Your task to perform on an android device: clear all cookies in the chrome app Image 0: 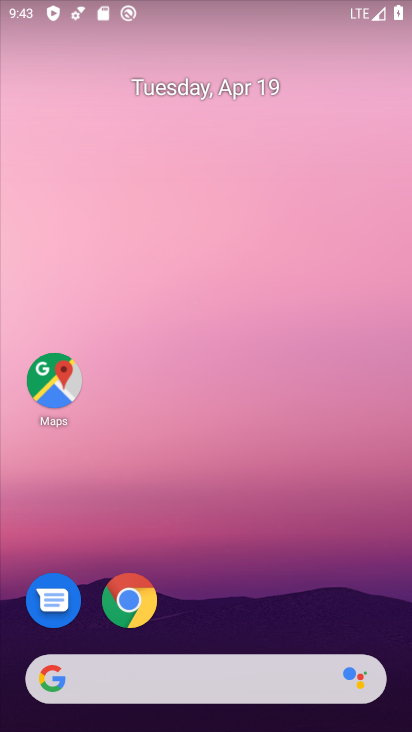
Step 0: drag from (335, 244) to (296, 61)
Your task to perform on an android device: clear all cookies in the chrome app Image 1: 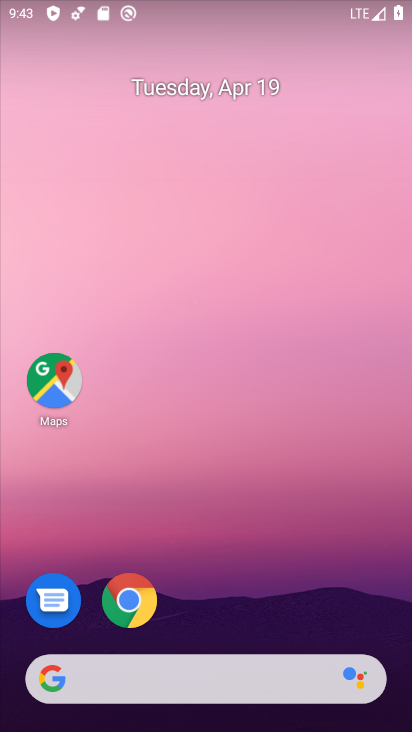
Step 1: drag from (335, 611) to (287, 107)
Your task to perform on an android device: clear all cookies in the chrome app Image 2: 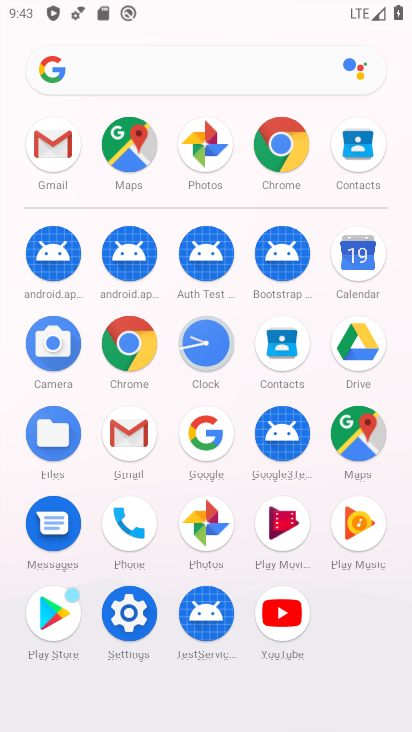
Step 2: click (283, 149)
Your task to perform on an android device: clear all cookies in the chrome app Image 3: 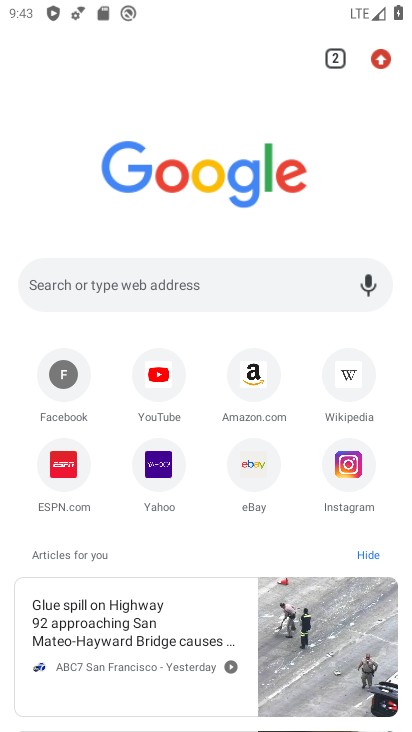
Step 3: click (378, 76)
Your task to perform on an android device: clear all cookies in the chrome app Image 4: 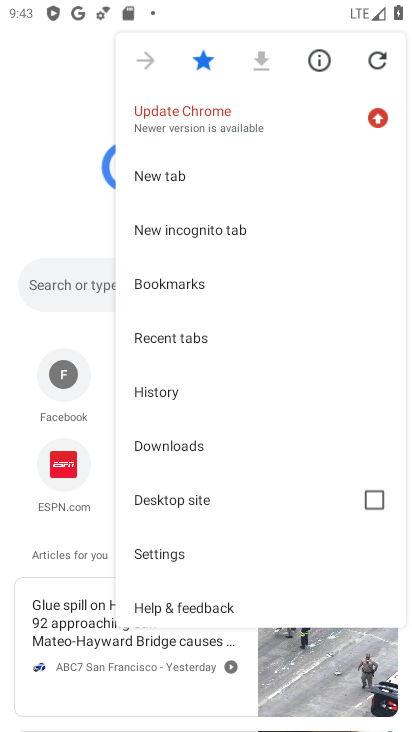
Step 4: click (232, 403)
Your task to perform on an android device: clear all cookies in the chrome app Image 5: 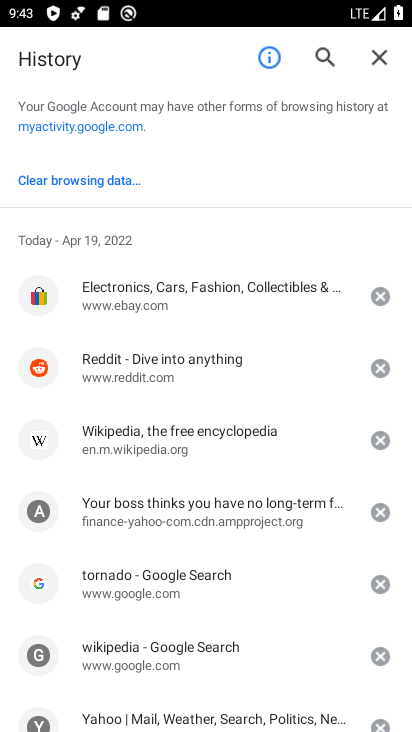
Step 5: click (116, 181)
Your task to perform on an android device: clear all cookies in the chrome app Image 6: 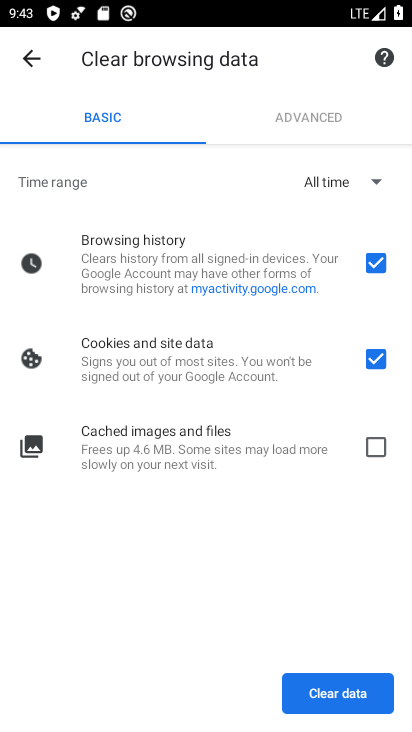
Step 6: click (344, 690)
Your task to perform on an android device: clear all cookies in the chrome app Image 7: 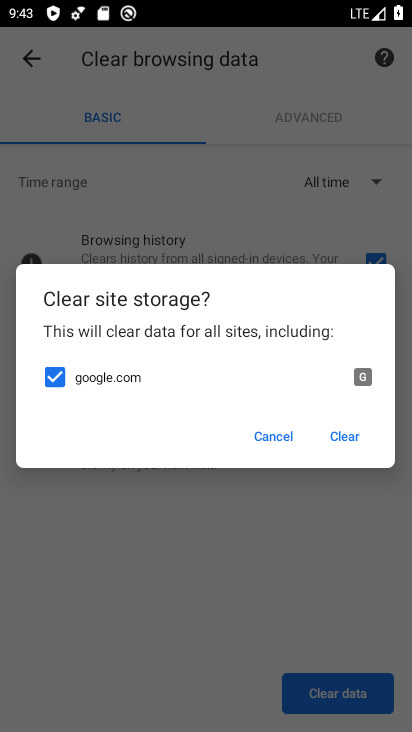
Step 7: click (352, 437)
Your task to perform on an android device: clear all cookies in the chrome app Image 8: 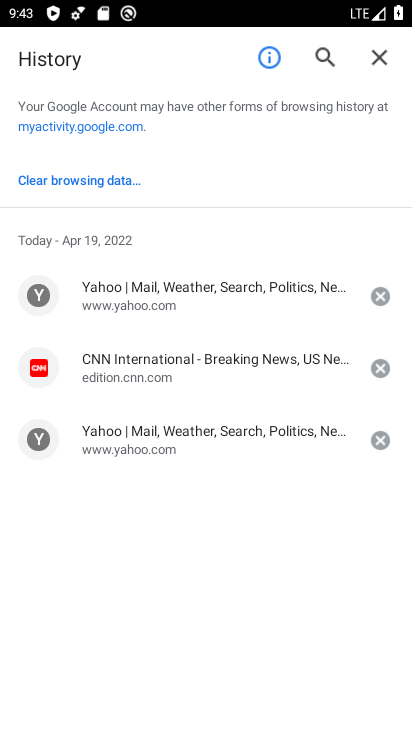
Step 8: task complete